Your task to perform on an android device: Open battery settings Image 0: 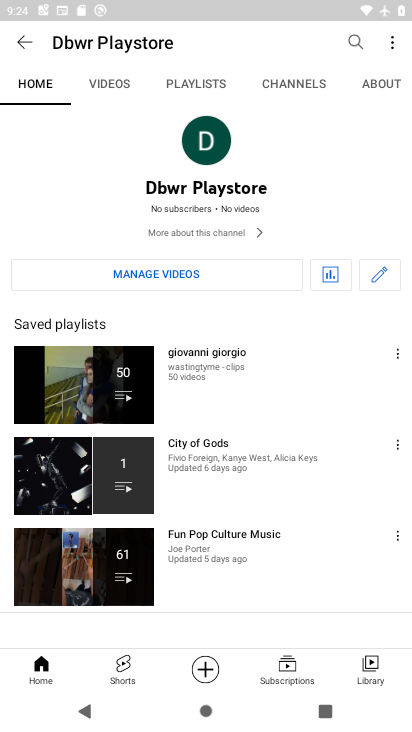
Step 0: press home button
Your task to perform on an android device: Open battery settings Image 1: 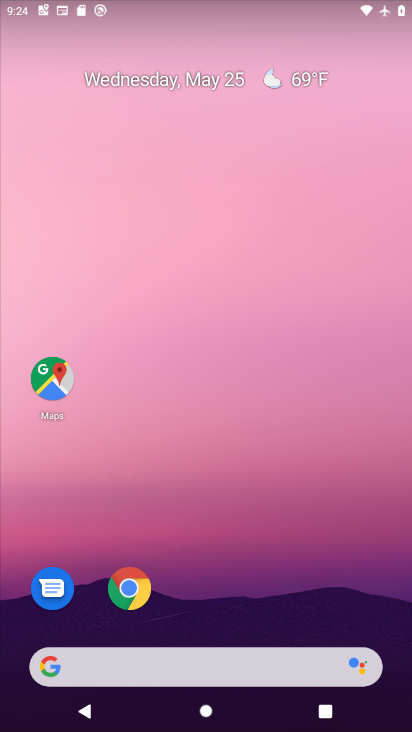
Step 1: drag from (347, 579) to (356, 207)
Your task to perform on an android device: Open battery settings Image 2: 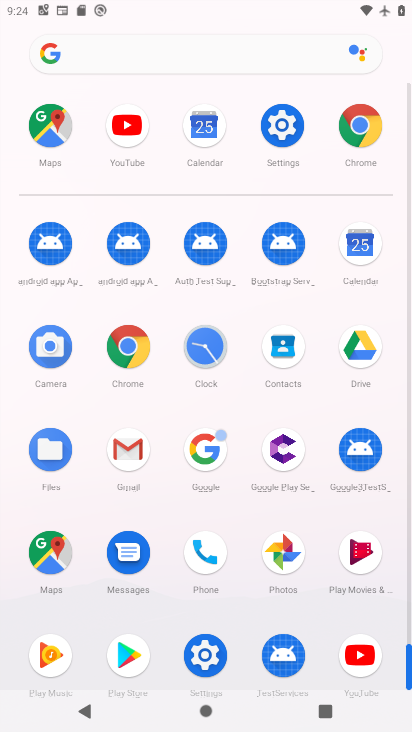
Step 2: click (299, 131)
Your task to perform on an android device: Open battery settings Image 3: 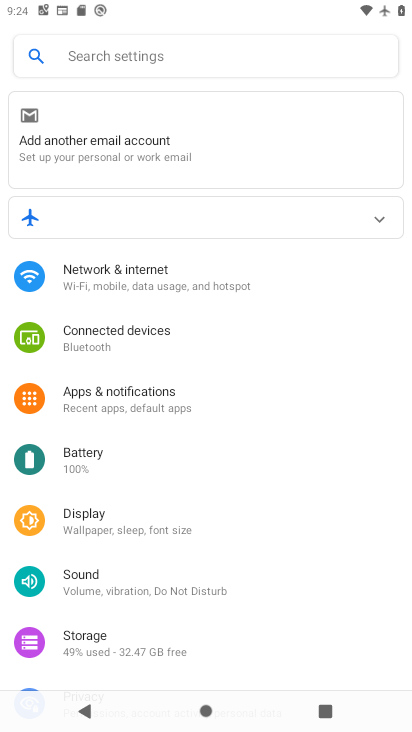
Step 3: drag from (328, 528) to (337, 391)
Your task to perform on an android device: Open battery settings Image 4: 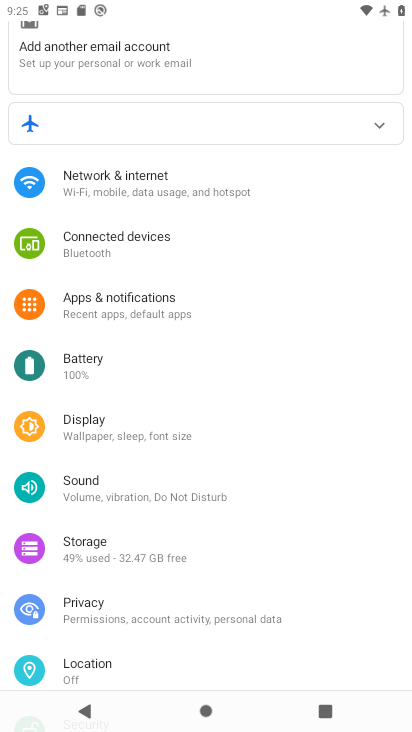
Step 4: drag from (335, 565) to (346, 426)
Your task to perform on an android device: Open battery settings Image 5: 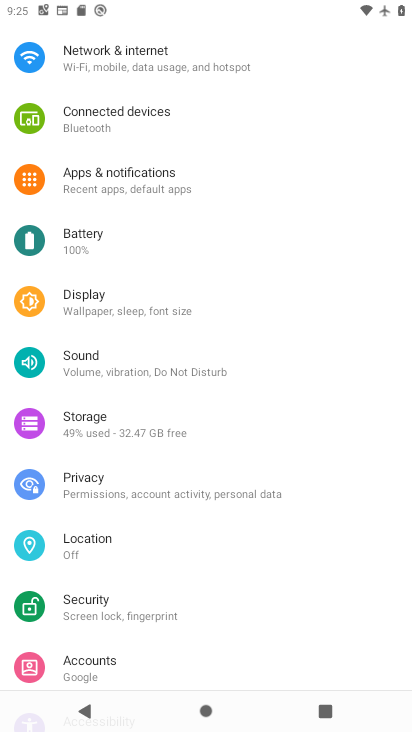
Step 5: drag from (340, 585) to (348, 414)
Your task to perform on an android device: Open battery settings Image 6: 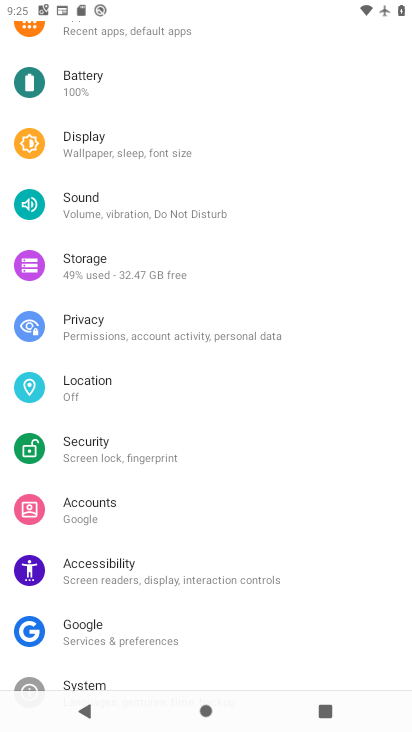
Step 6: drag from (338, 591) to (347, 440)
Your task to perform on an android device: Open battery settings Image 7: 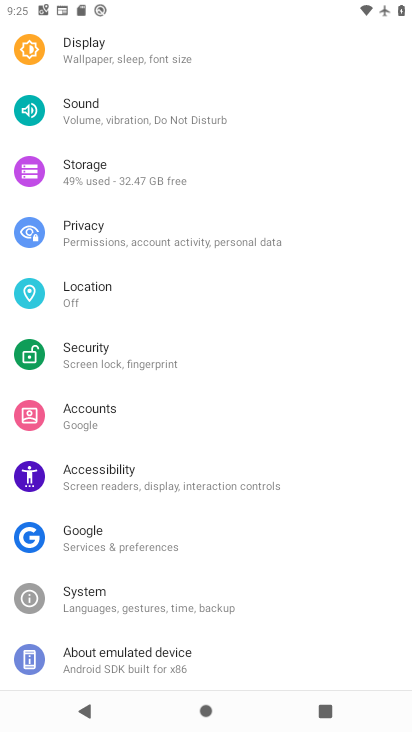
Step 7: drag from (342, 598) to (352, 409)
Your task to perform on an android device: Open battery settings Image 8: 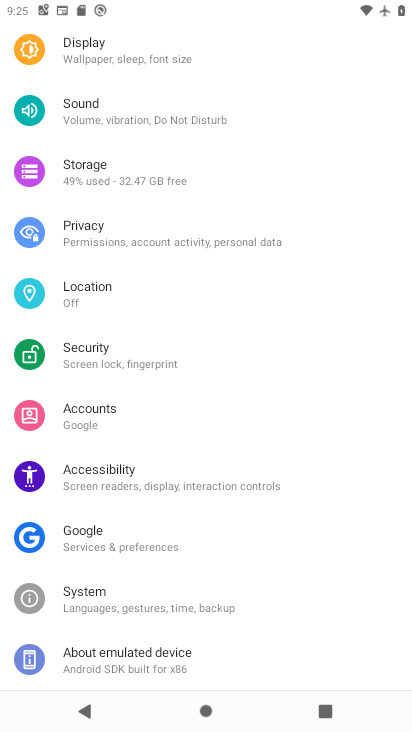
Step 8: drag from (293, 170) to (298, 292)
Your task to perform on an android device: Open battery settings Image 9: 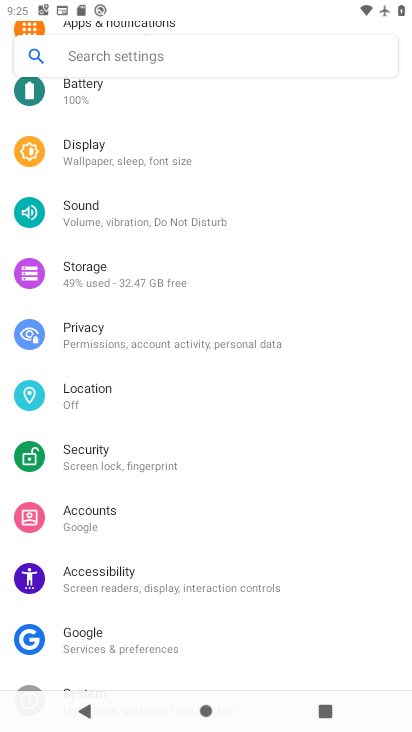
Step 9: drag from (305, 197) to (307, 307)
Your task to perform on an android device: Open battery settings Image 10: 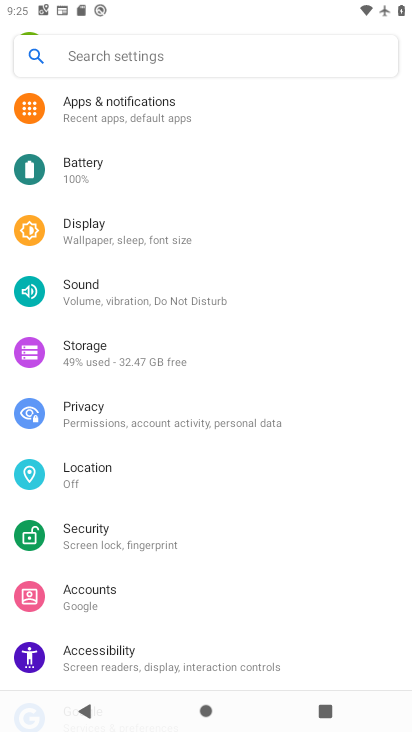
Step 10: drag from (311, 195) to (317, 353)
Your task to perform on an android device: Open battery settings Image 11: 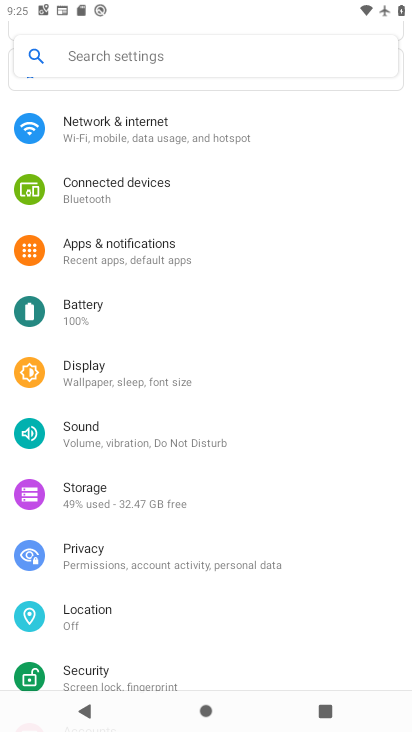
Step 11: drag from (290, 206) to (305, 399)
Your task to perform on an android device: Open battery settings Image 12: 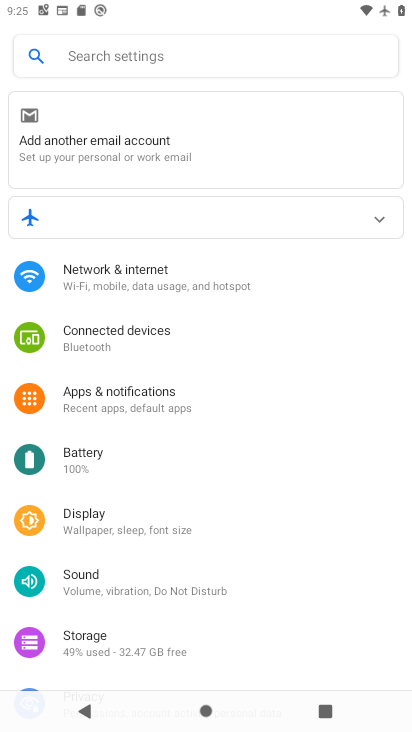
Step 12: click (96, 458)
Your task to perform on an android device: Open battery settings Image 13: 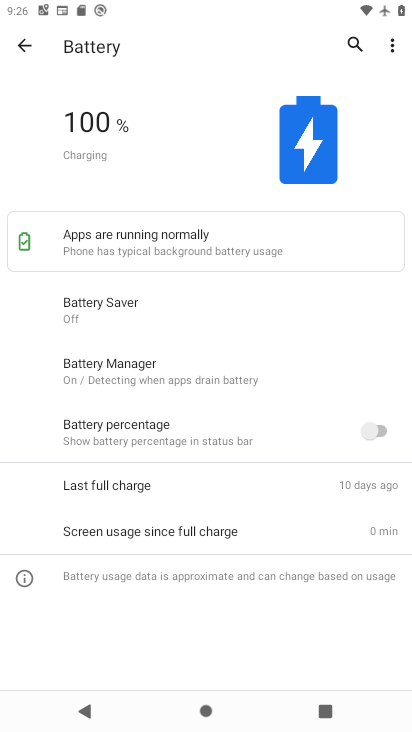
Step 13: task complete